Your task to perform on an android device: change text size in settings app Image 0: 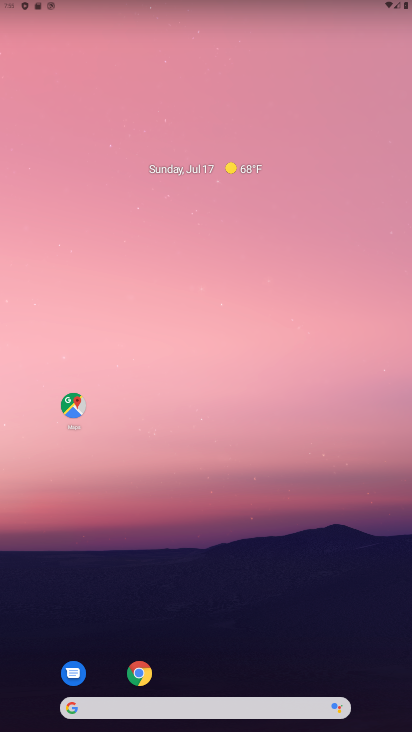
Step 0: drag from (145, 729) to (114, 2)
Your task to perform on an android device: change text size in settings app Image 1: 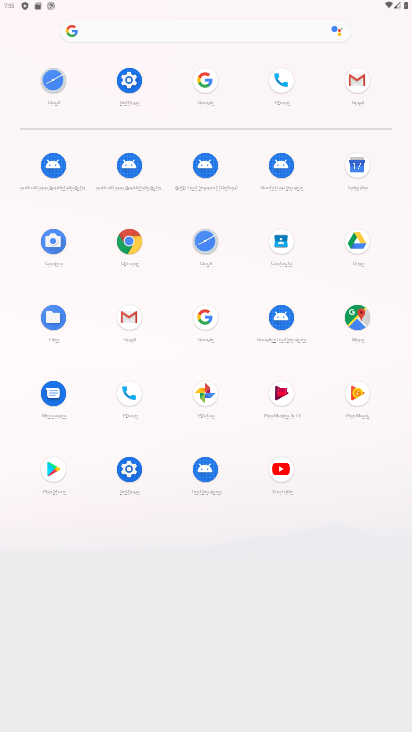
Step 1: click (140, 81)
Your task to perform on an android device: change text size in settings app Image 2: 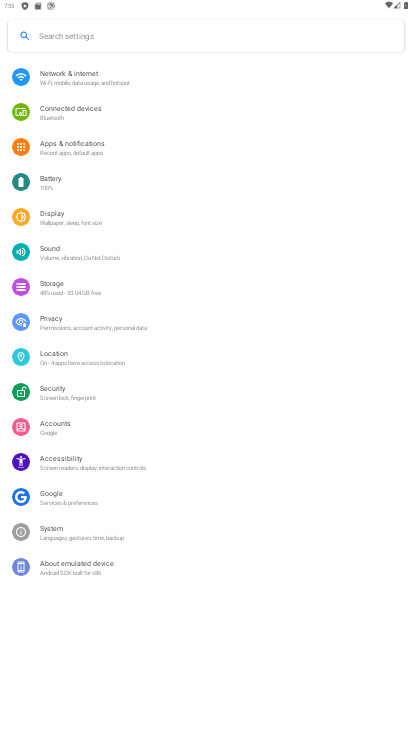
Step 2: click (70, 219)
Your task to perform on an android device: change text size in settings app Image 3: 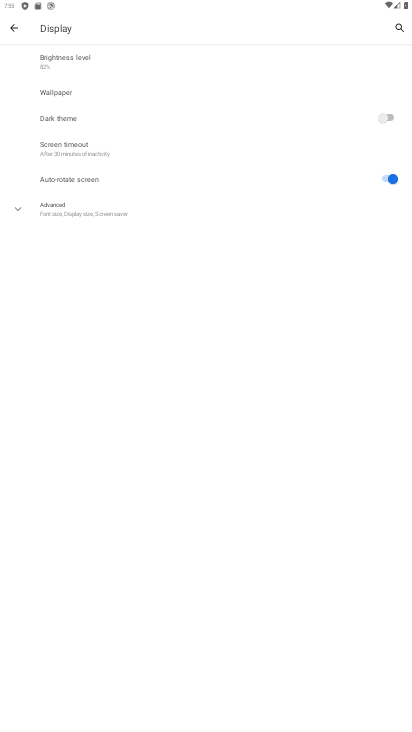
Step 3: click (68, 214)
Your task to perform on an android device: change text size in settings app Image 4: 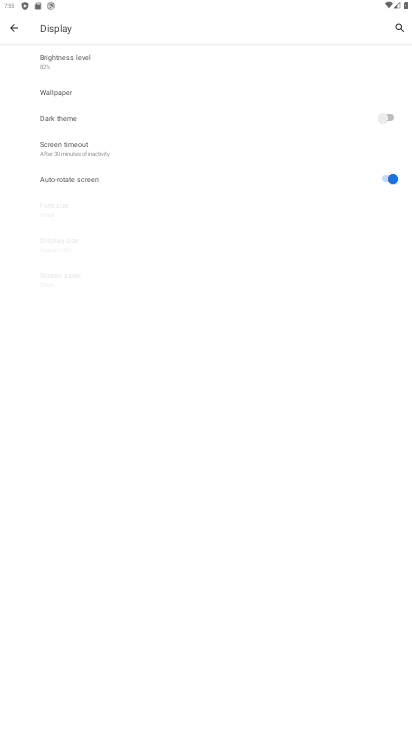
Step 4: click (68, 202)
Your task to perform on an android device: change text size in settings app Image 5: 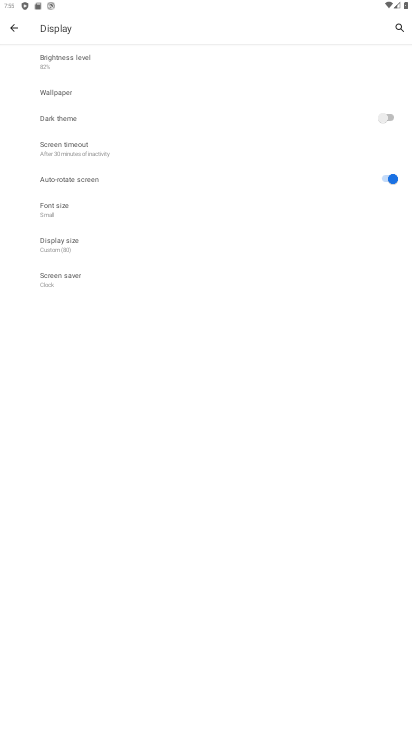
Step 5: click (68, 202)
Your task to perform on an android device: change text size in settings app Image 6: 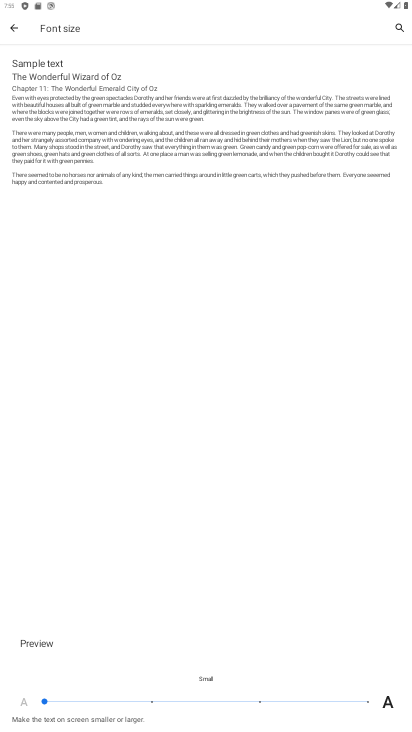
Step 6: drag from (237, 254) to (373, 425)
Your task to perform on an android device: change text size in settings app Image 7: 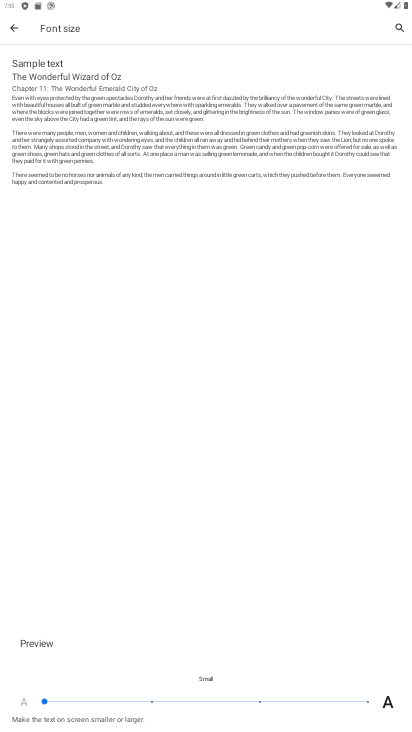
Step 7: click (221, 694)
Your task to perform on an android device: change text size in settings app Image 8: 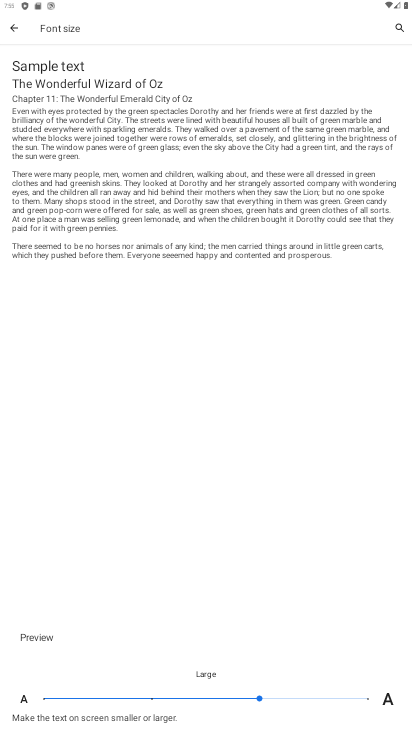
Step 8: task complete